Your task to perform on an android device: turn on javascript in the chrome app Image 0: 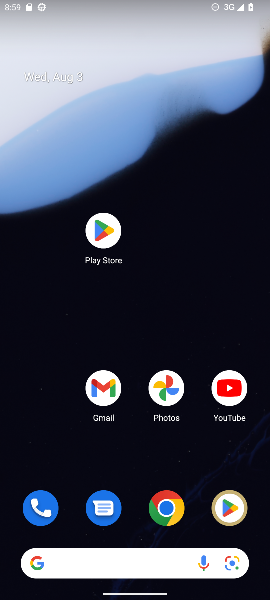
Step 0: click (171, 505)
Your task to perform on an android device: turn on javascript in the chrome app Image 1: 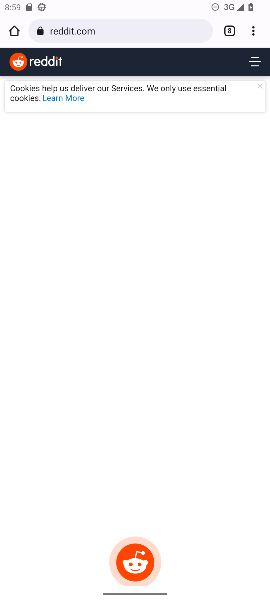
Step 1: drag from (255, 28) to (185, 393)
Your task to perform on an android device: turn on javascript in the chrome app Image 2: 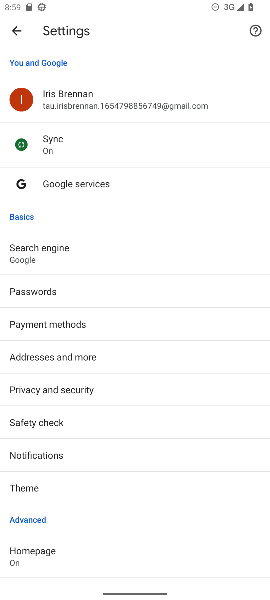
Step 2: drag from (53, 501) to (15, 139)
Your task to perform on an android device: turn on javascript in the chrome app Image 3: 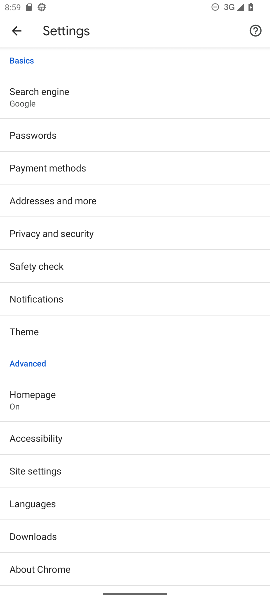
Step 3: click (49, 477)
Your task to perform on an android device: turn on javascript in the chrome app Image 4: 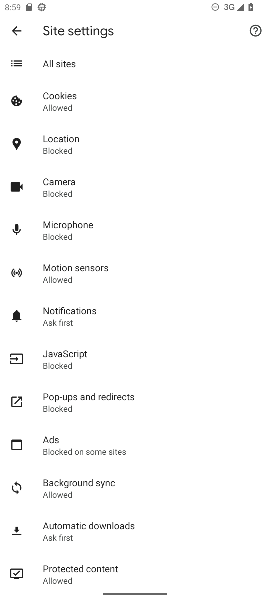
Step 4: click (57, 361)
Your task to perform on an android device: turn on javascript in the chrome app Image 5: 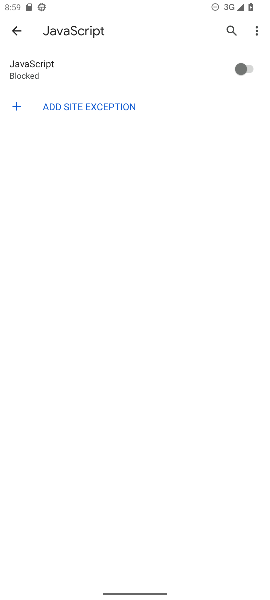
Step 5: click (231, 65)
Your task to perform on an android device: turn on javascript in the chrome app Image 6: 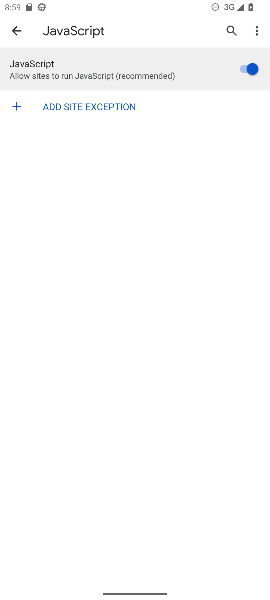
Step 6: task complete